Your task to perform on an android device: Go to Android settings Image 0: 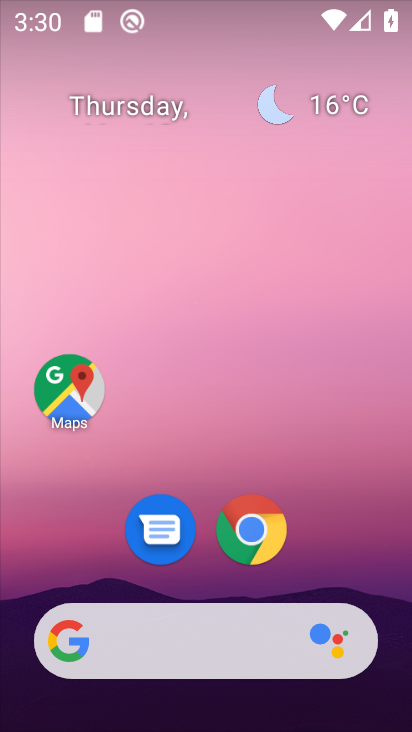
Step 0: drag from (243, 610) to (398, 4)
Your task to perform on an android device: Go to Android settings Image 1: 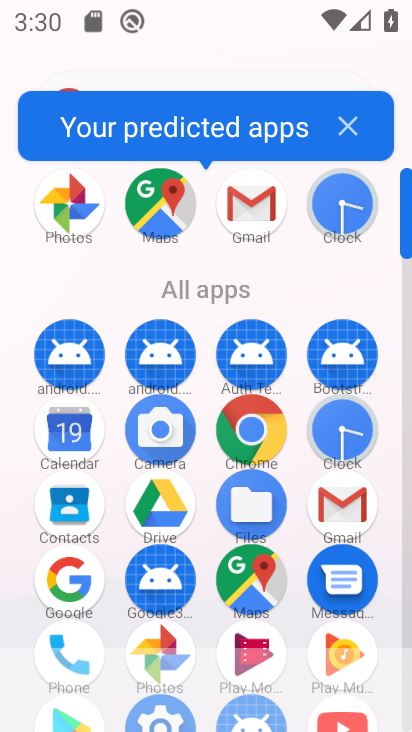
Step 1: drag from (199, 590) to (133, 33)
Your task to perform on an android device: Go to Android settings Image 2: 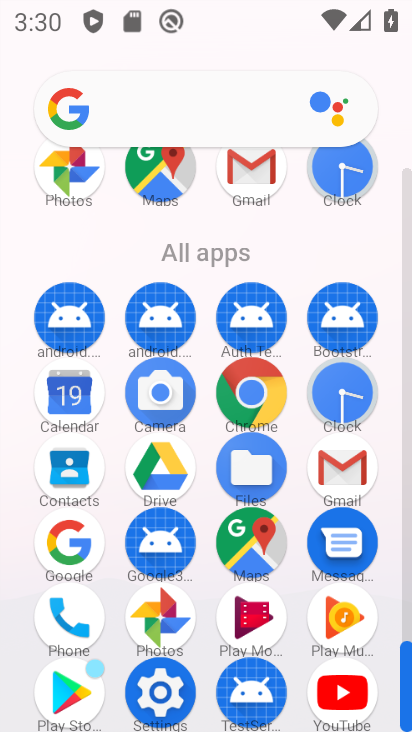
Step 2: click (159, 668)
Your task to perform on an android device: Go to Android settings Image 3: 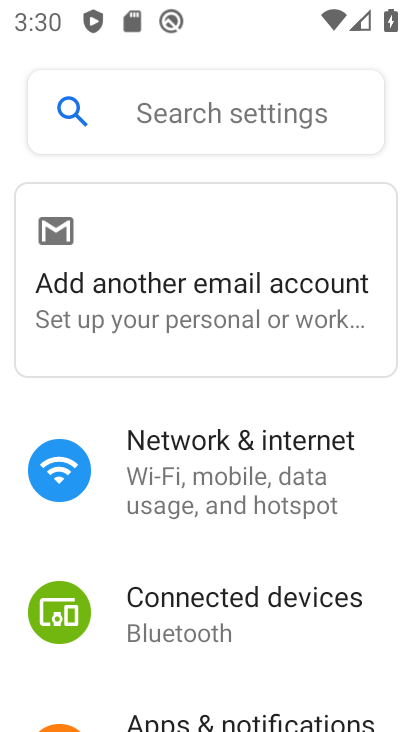
Step 3: task complete